Your task to perform on an android device: turn off notifications in google photos Image 0: 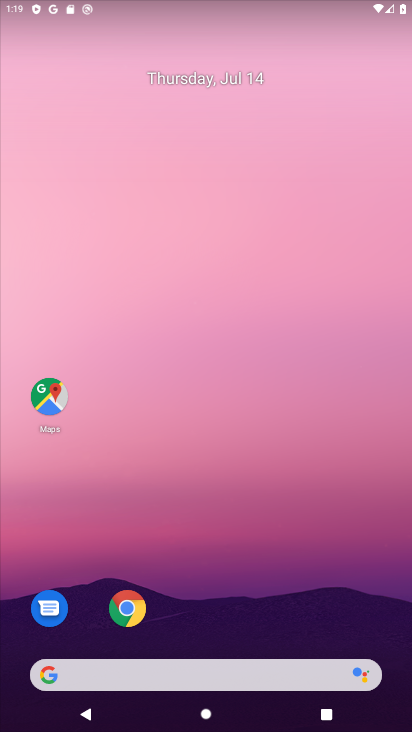
Step 0: drag from (274, 680) to (372, 108)
Your task to perform on an android device: turn off notifications in google photos Image 1: 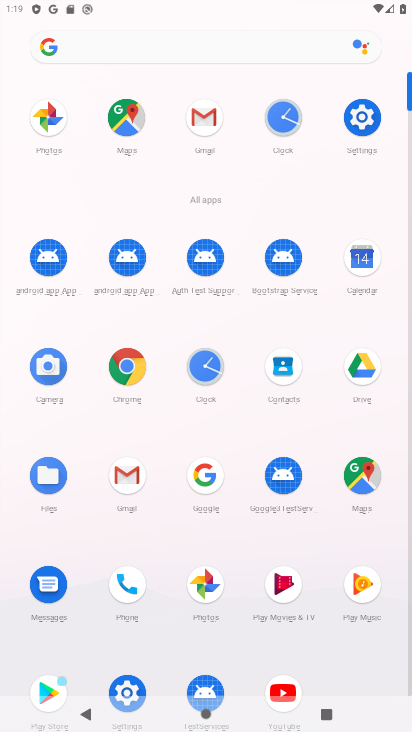
Step 1: click (211, 589)
Your task to perform on an android device: turn off notifications in google photos Image 2: 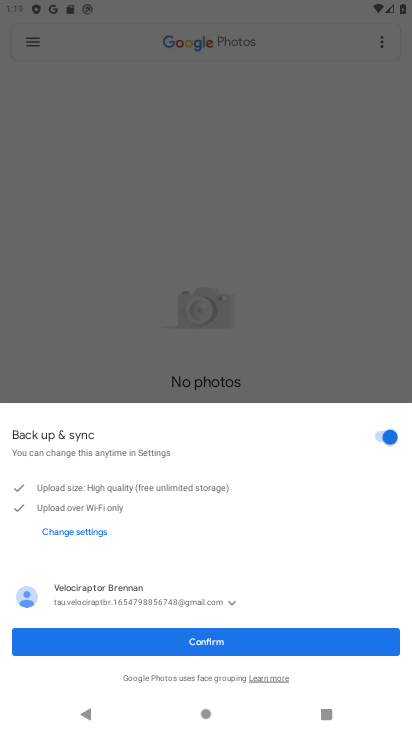
Step 2: click (198, 647)
Your task to perform on an android device: turn off notifications in google photos Image 3: 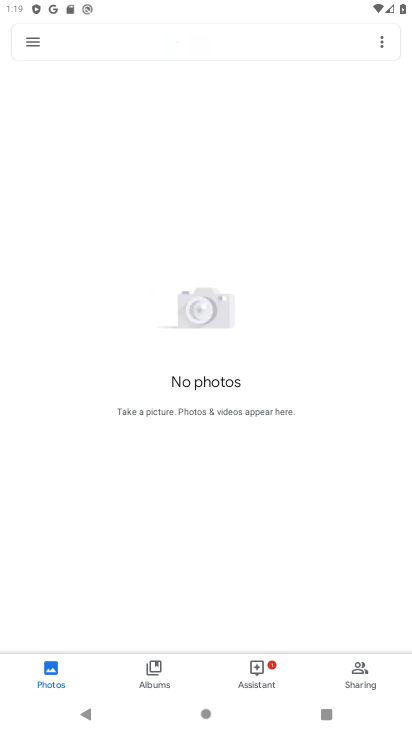
Step 3: click (23, 35)
Your task to perform on an android device: turn off notifications in google photos Image 4: 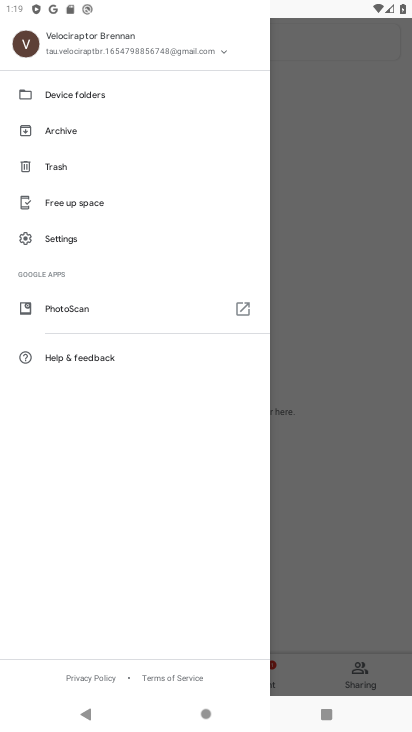
Step 4: click (80, 240)
Your task to perform on an android device: turn off notifications in google photos Image 5: 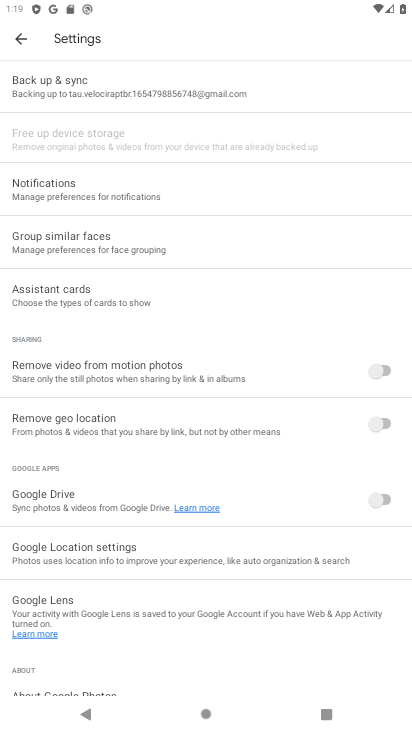
Step 5: click (69, 197)
Your task to perform on an android device: turn off notifications in google photos Image 6: 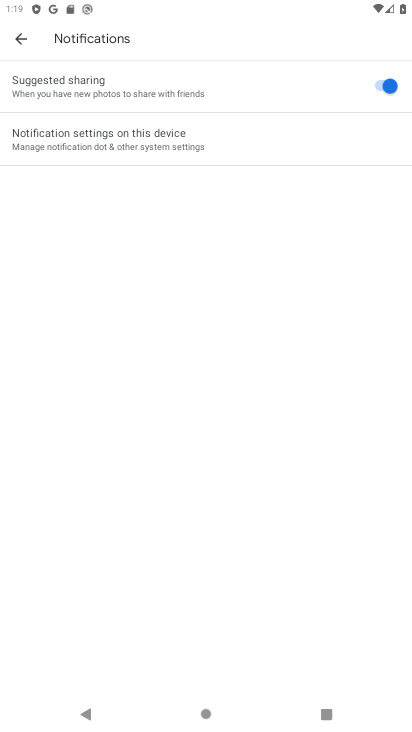
Step 6: click (128, 146)
Your task to perform on an android device: turn off notifications in google photos Image 7: 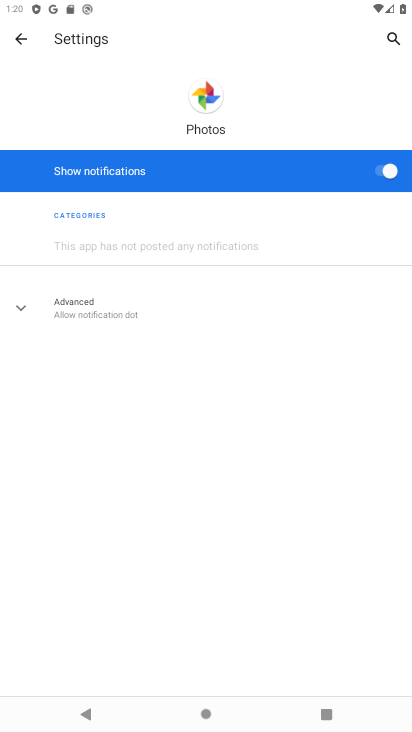
Step 7: click (395, 166)
Your task to perform on an android device: turn off notifications in google photos Image 8: 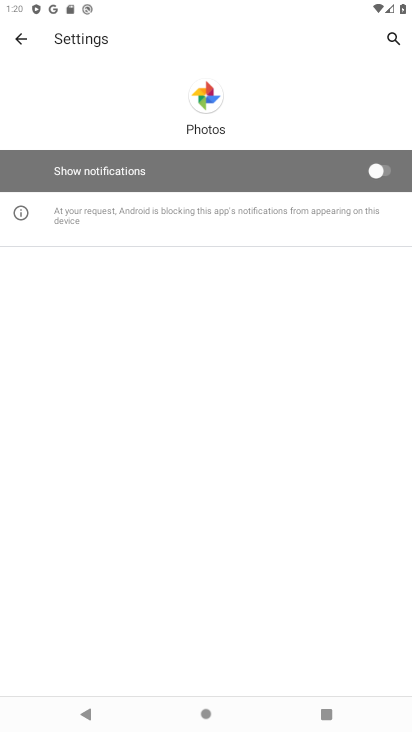
Step 8: task complete